Your task to perform on an android device: add a contact Image 0: 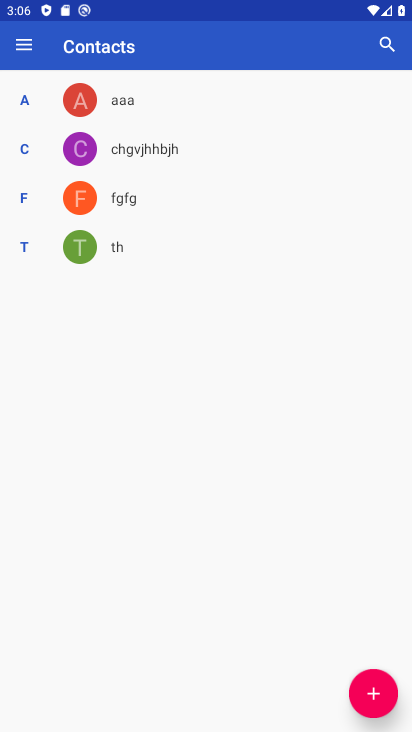
Step 0: click (375, 699)
Your task to perform on an android device: add a contact Image 1: 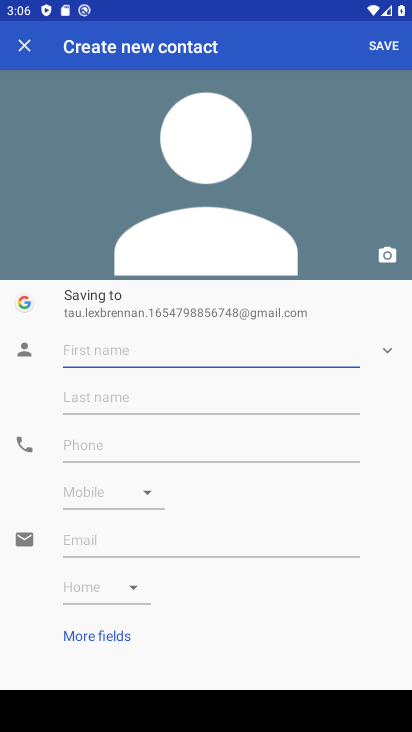
Step 1: click (184, 326)
Your task to perform on an android device: add a contact Image 2: 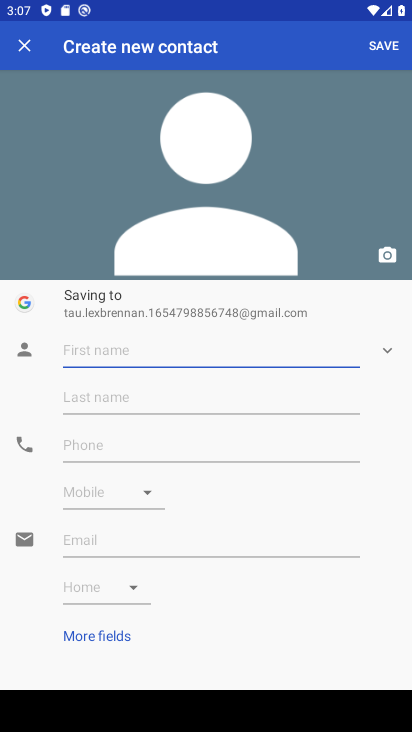
Step 2: type "fds"
Your task to perform on an android device: add a contact Image 3: 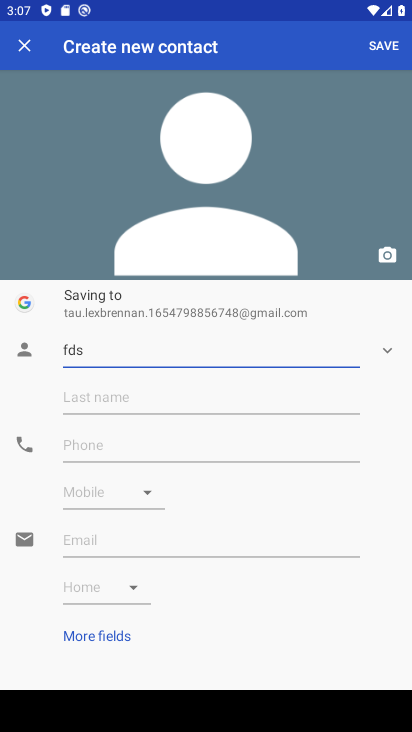
Step 3: click (194, 445)
Your task to perform on an android device: add a contact Image 4: 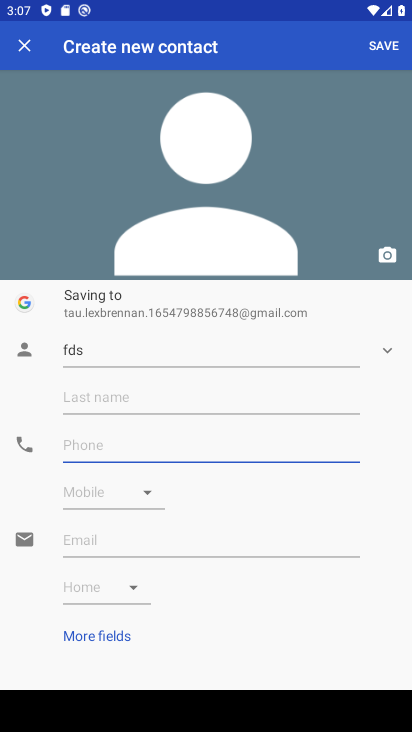
Step 4: type "434"
Your task to perform on an android device: add a contact Image 5: 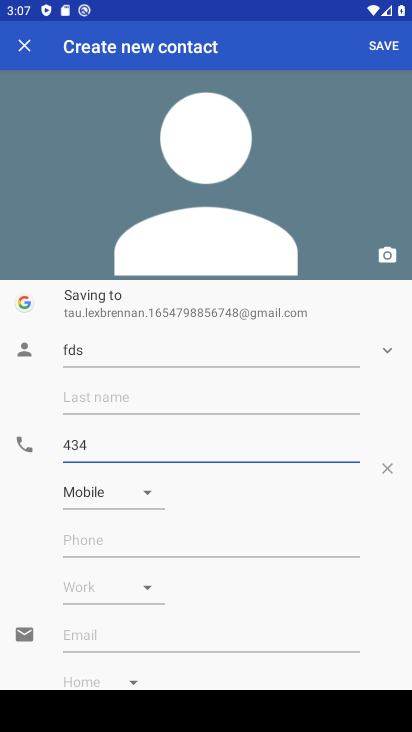
Step 5: click (390, 48)
Your task to perform on an android device: add a contact Image 6: 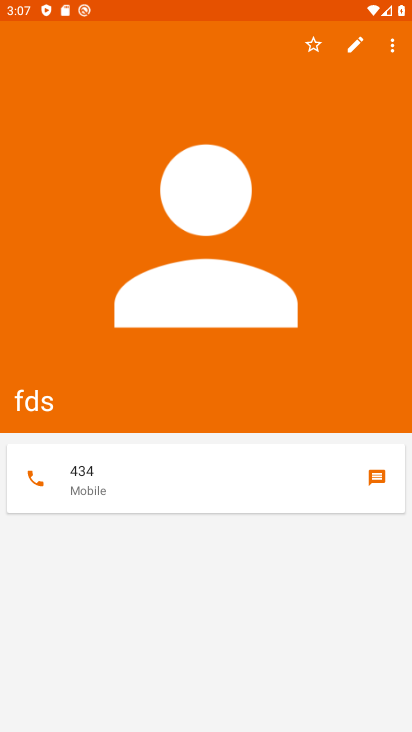
Step 6: task complete